Your task to perform on an android device: Go to Google maps Image 0: 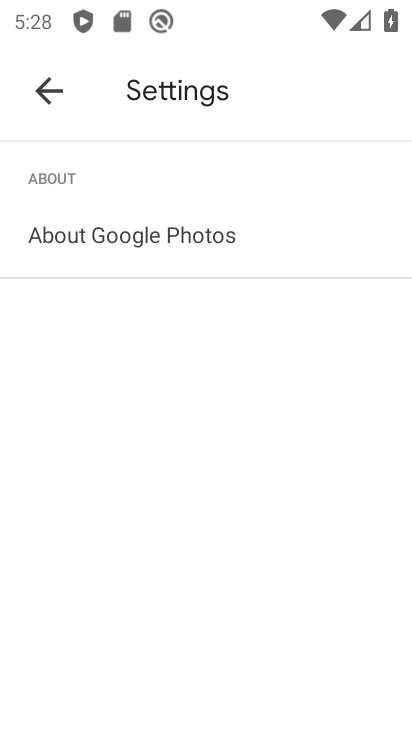
Step 0: press home button
Your task to perform on an android device: Go to Google maps Image 1: 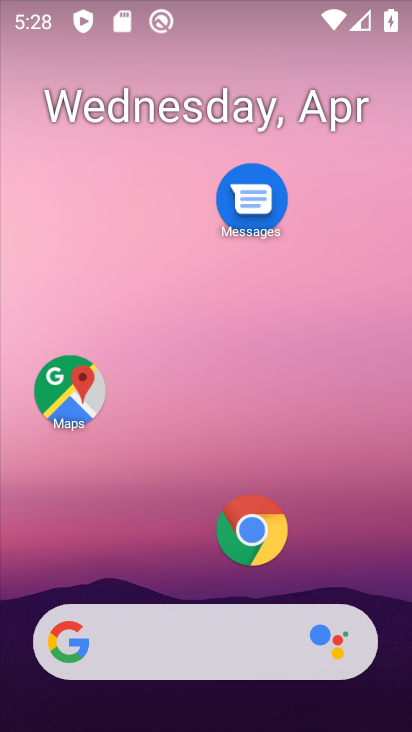
Step 1: click (72, 394)
Your task to perform on an android device: Go to Google maps Image 2: 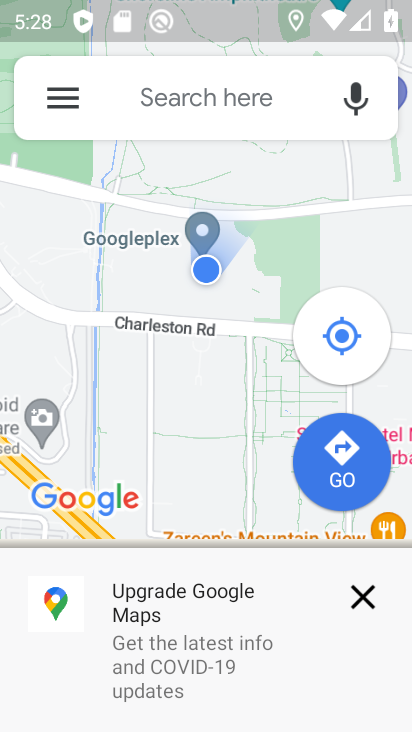
Step 2: click (356, 596)
Your task to perform on an android device: Go to Google maps Image 3: 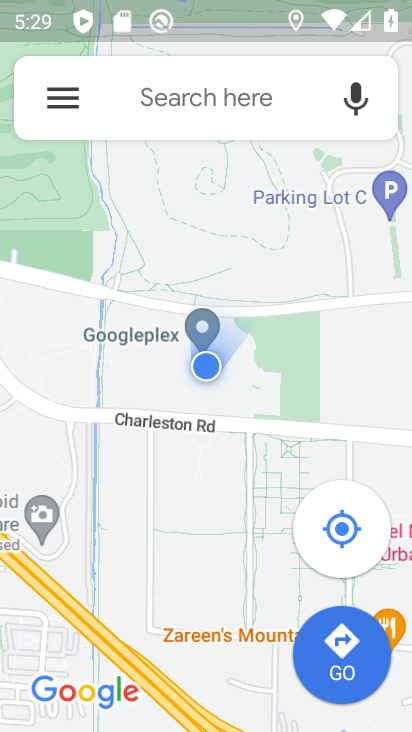
Step 3: task complete